Your task to perform on an android device: open device folders in google photos Image 0: 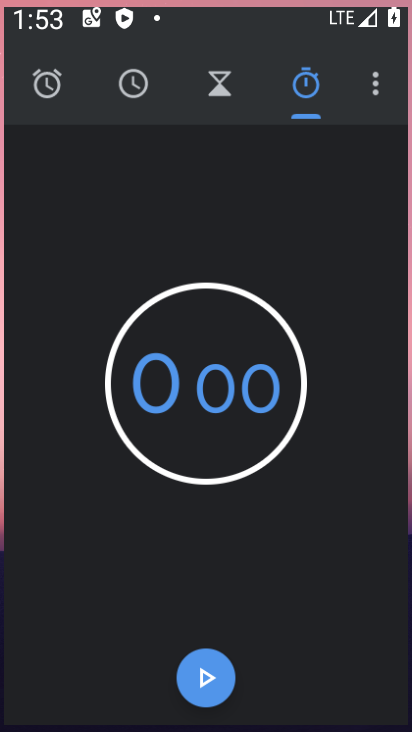
Step 0: press home button
Your task to perform on an android device: open device folders in google photos Image 1: 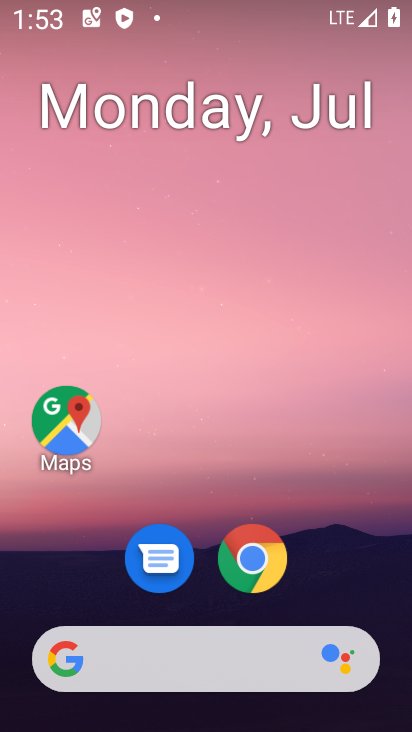
Step 1: press home button
Your task to perform on an android device: open device folders in google photos Image 2: 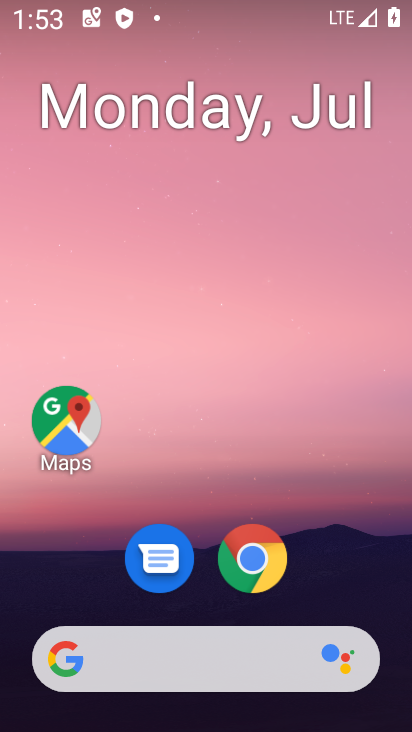
Step 2: drag from (348, 552) to (352, 117)
Your task to perform on an android device: open device folders in google photos Image 3: 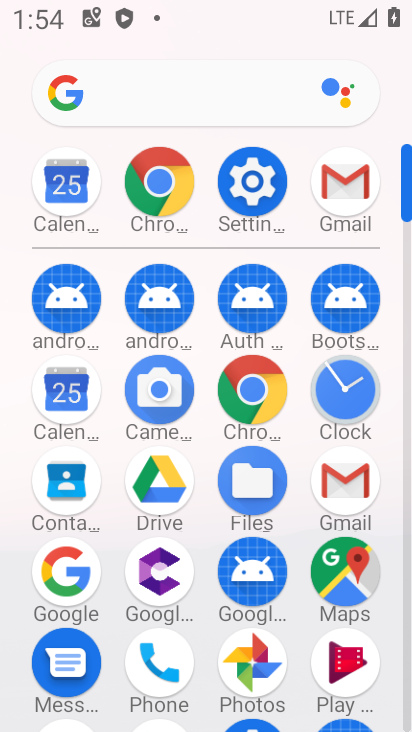
Step 3: click (255, 662)
Your task to perform on an android device: open device folders in google photos Image 4: 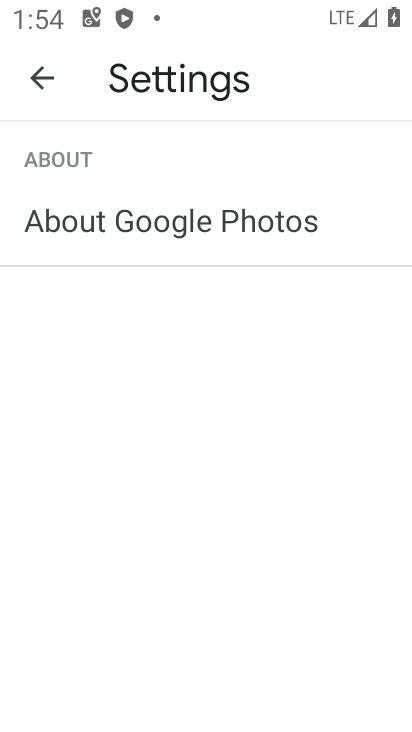
Step 4: press back button
Your task to perform on an android device: open device folders in google photos Image 5: 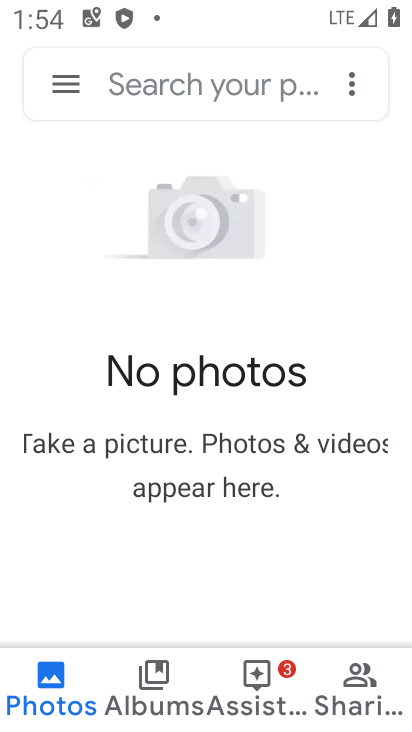
Step 5: click (60, 79)
Your task to perform on an android device: open device folders in google photos Image 6: 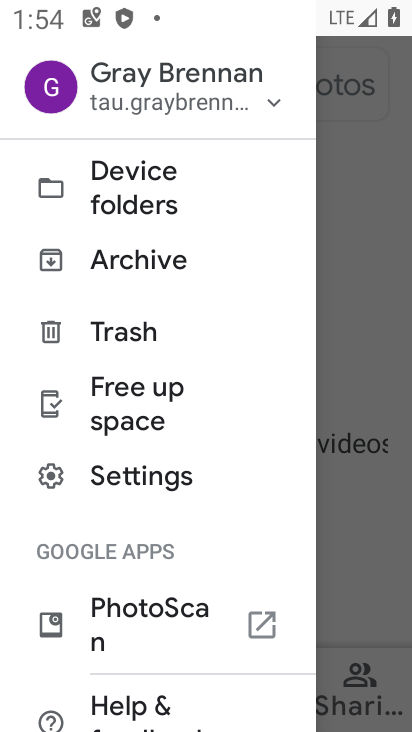
Step 6: drag from (254, 467) to (235, 334)
Your task to perform on an android device: open device folders in google photos Image 7: 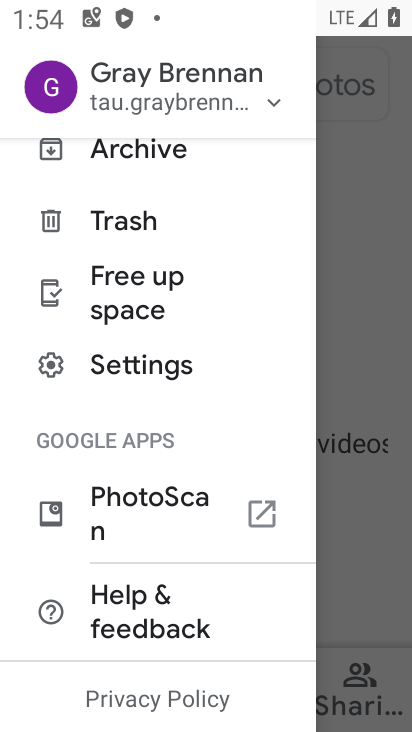
Step 7: drag from (219, 520) to (217, 373)
Your task to perform on an android device: open device folders in google photos Image 8: 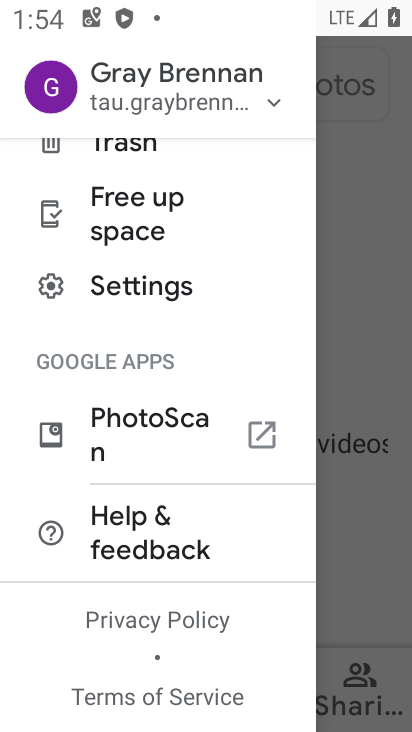
Step 8: drag from (224, 259) to (221, 410)
Your task to perform on an android device: open device folders in google photos Image 9: 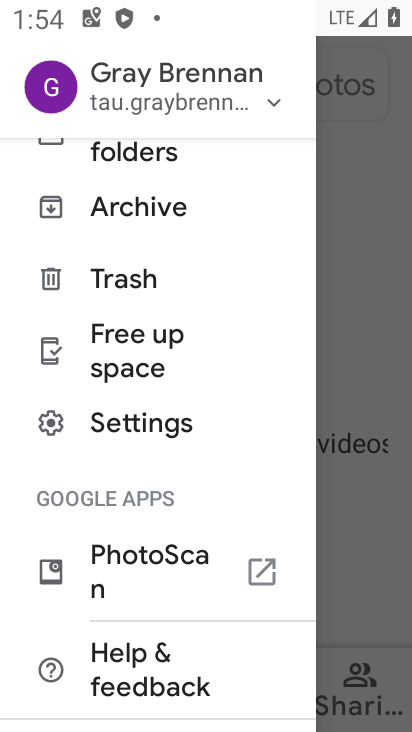
Step 9: drag from (240, 182) to (222, 417)
Your task to perform on an android device: open device folders in google photos Image 10: 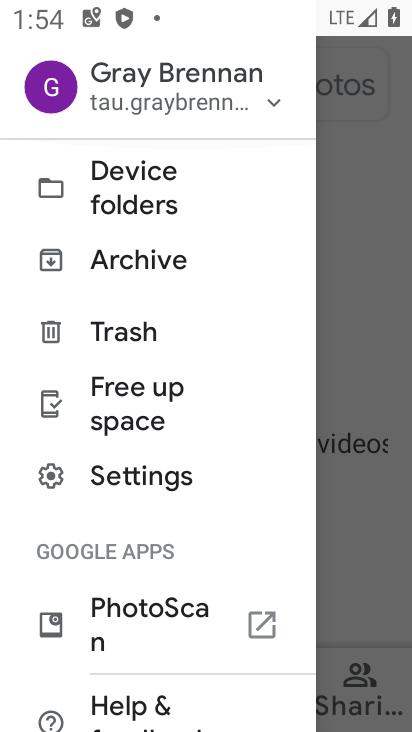
Step 10: click (168, 200)
Your task to perform on an android device: open device folders in google photos Image 11: 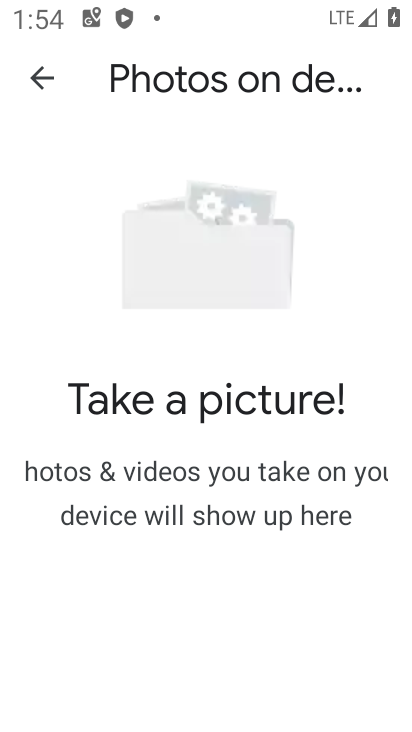
Step 11: task complete